Your task to perform on an android device: Go to notification settings Image 0: 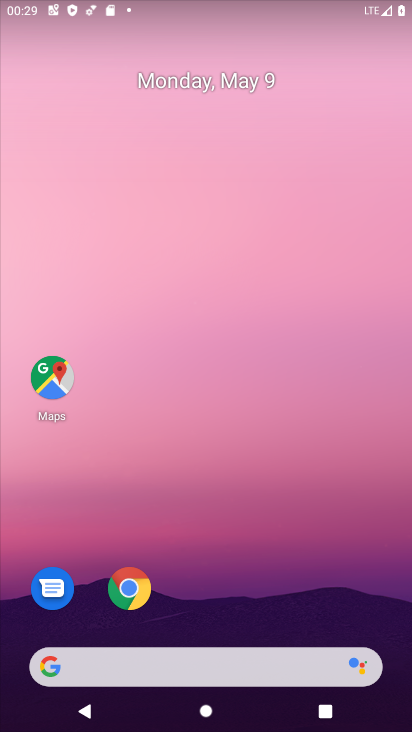
Step 0: drag from (304, 564) to (235, 126)
Your task to perform on an android device: Go to notification settings Image 1: 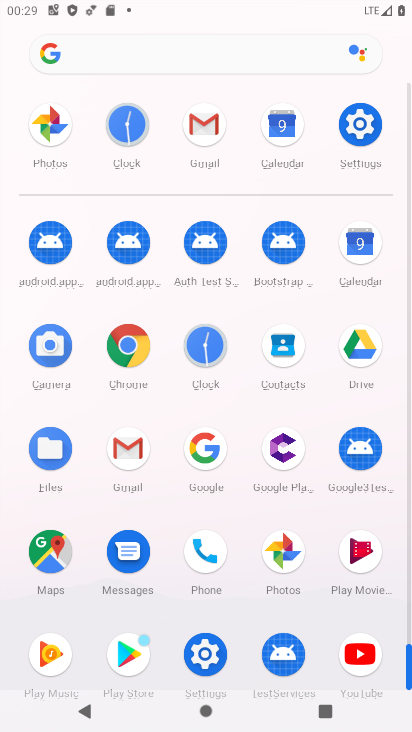
Step 1: click (361, 120)
Your task to perform on an android device: Go to notification settings Image 2: 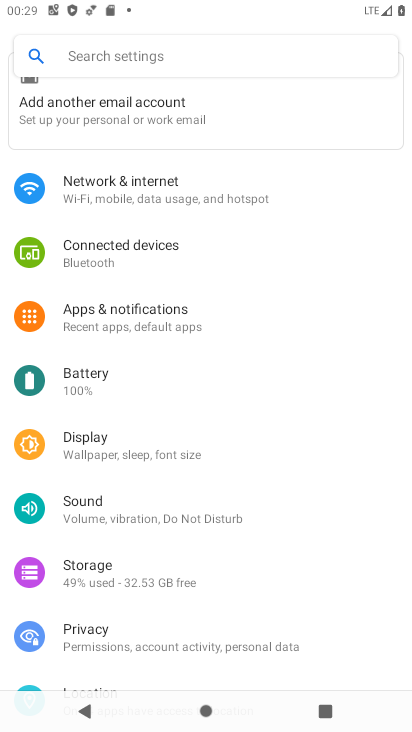
Step 2: click (118, 307)
Your task to perform on an android device: Go to notification settings Image 3: 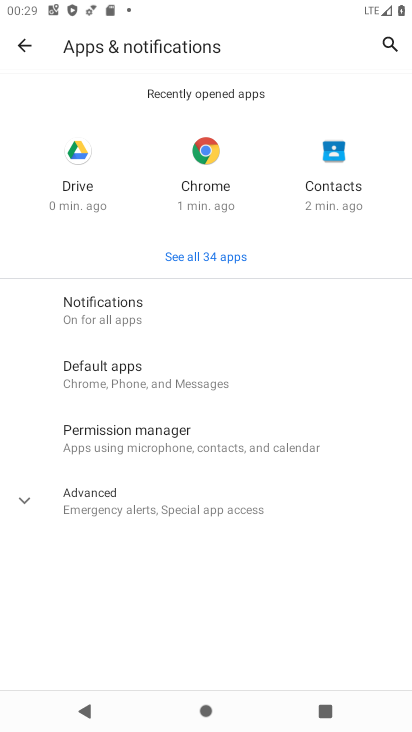
Step 3: task complete